Your task to perform on an android device: Open Reddit.com Image 0: 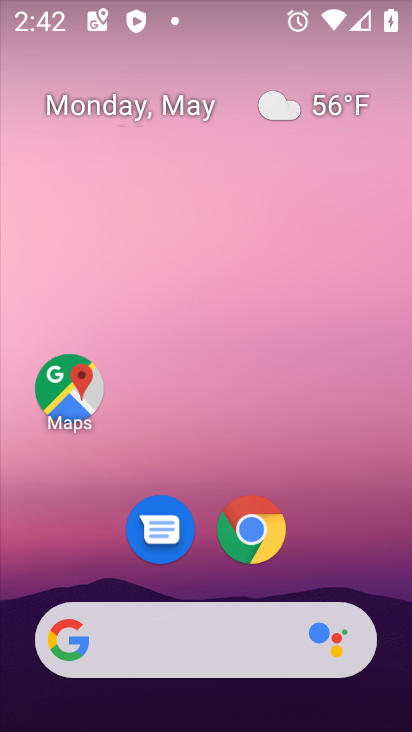
Step 0: click (248, 524)
Your task to perform on an android device: Open Reddit.com Image 1: 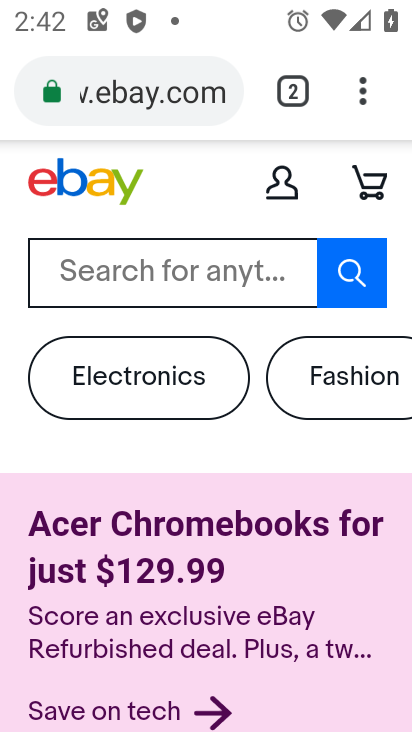
Step 1: click (109, 102)
Your task to perform on an android device: Open Reddit.com Image 2: 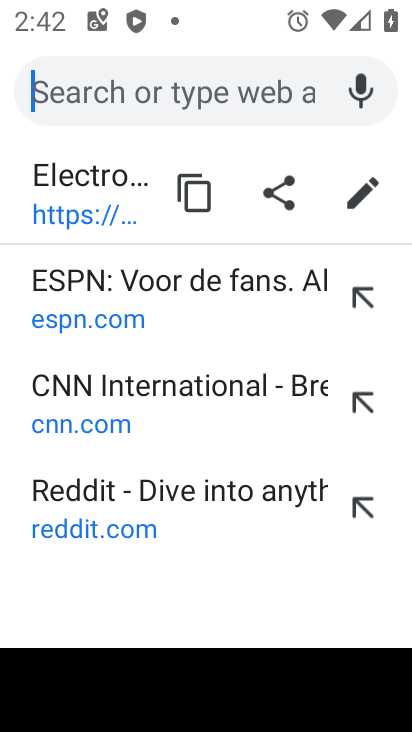
Step 2: type "Reddit.com"
Your task to perform on an android device: Open Reddit.com Image 3: 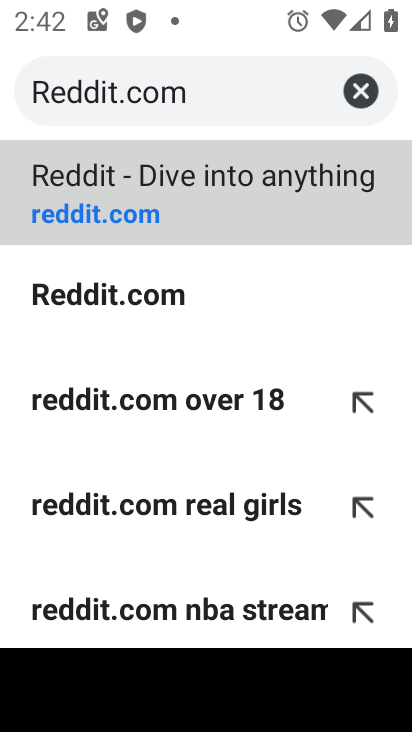
Step 3: click (192, 208)
Your task to perform on an android device: Open Reddit.com Image 4: 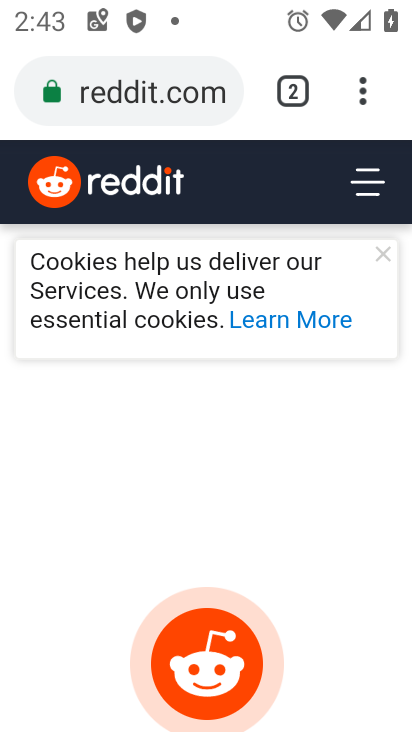
Step 4: task complete